Your task to perform on an android device: Add "razer nari" to the cart on target, then select checkout. Image 0: 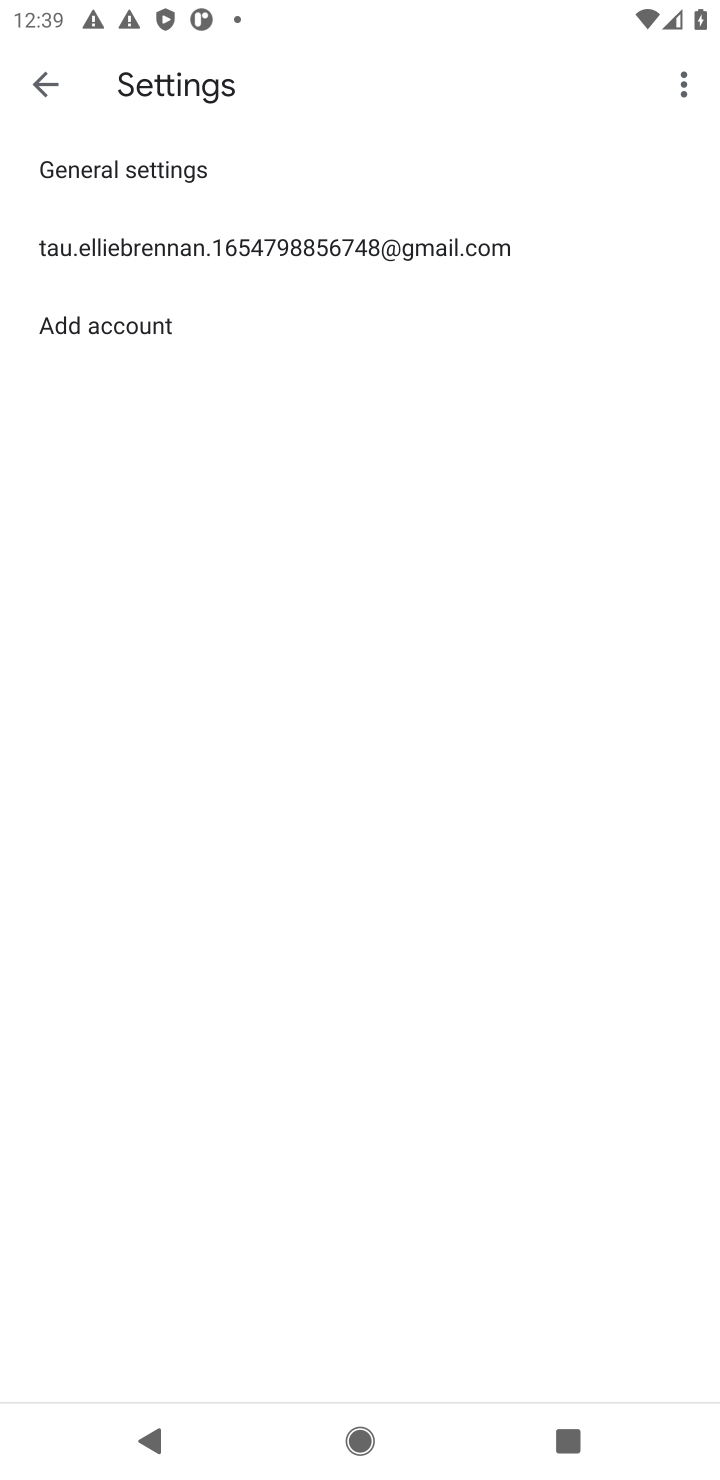
Step 0: press home button
Your task to perform on an android device: Add "razer nari" to the cart on target, then select checkout. Image 1: 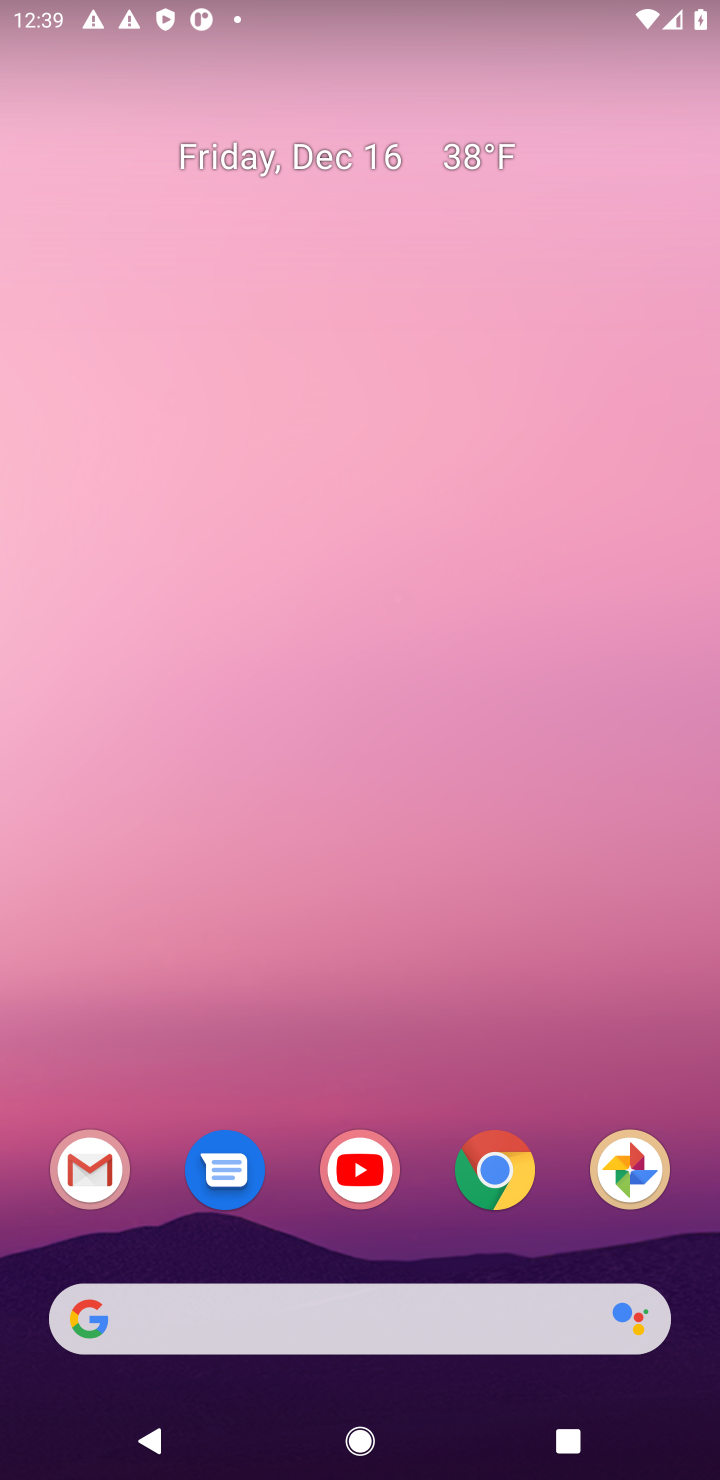
Step 1: click (482, 1182)
Your task to perform on an android device: Add "razer nari" to the cart on target, then select checkout. Image 2: 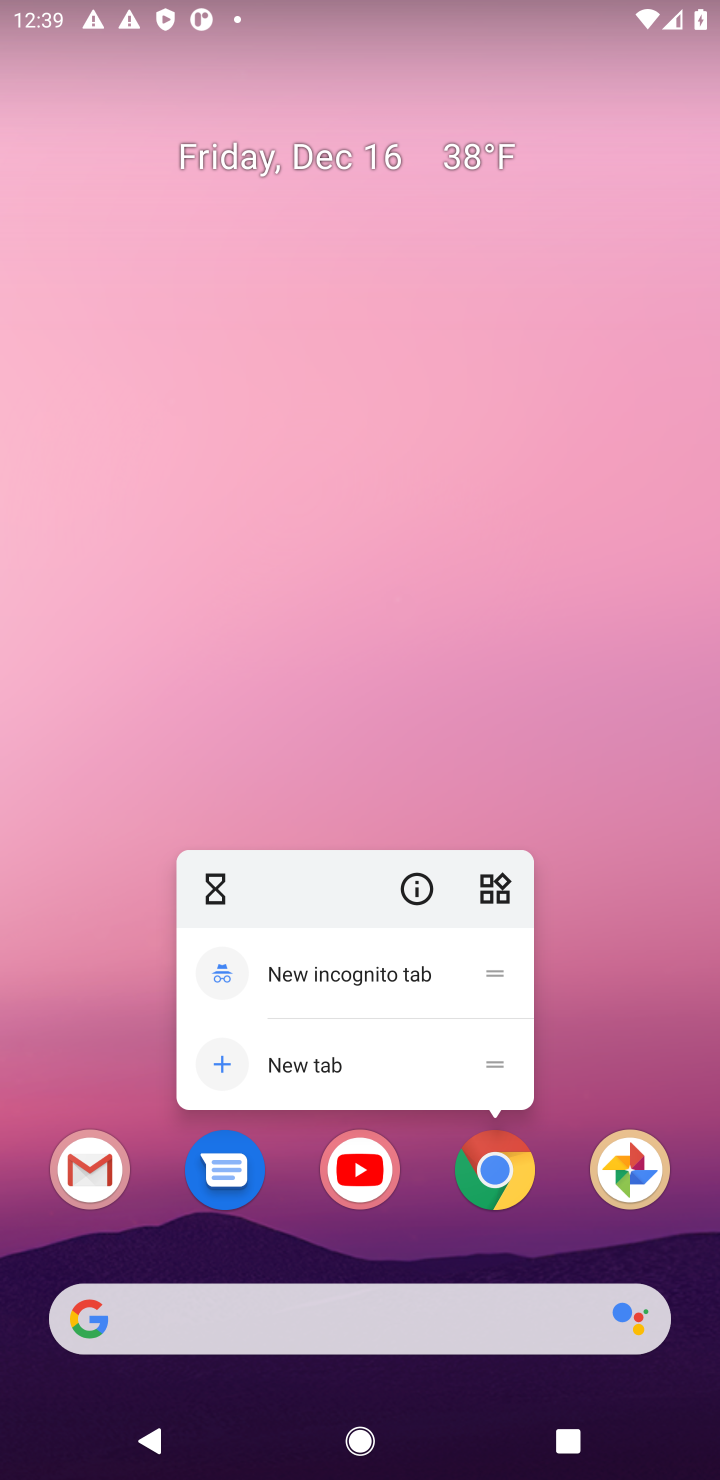
Step 2: click (488, 1191)
Your task to perform on an android device: Add "razer nari" to the cart on target, then select checkout. Image 3: 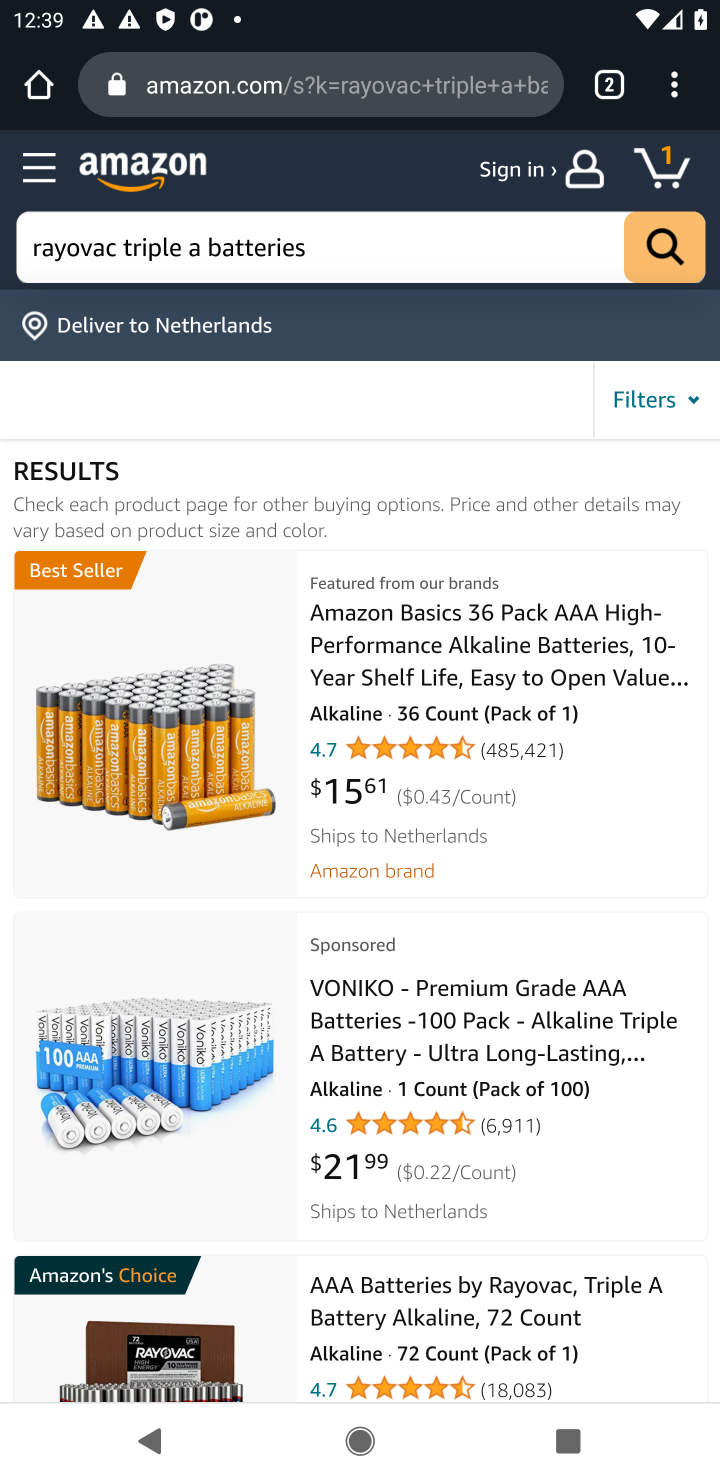
Step 3: click (230, 94)
Your task to perform on an android device: Add "razer nari" to the cart on target, then select checkout. Image 4: 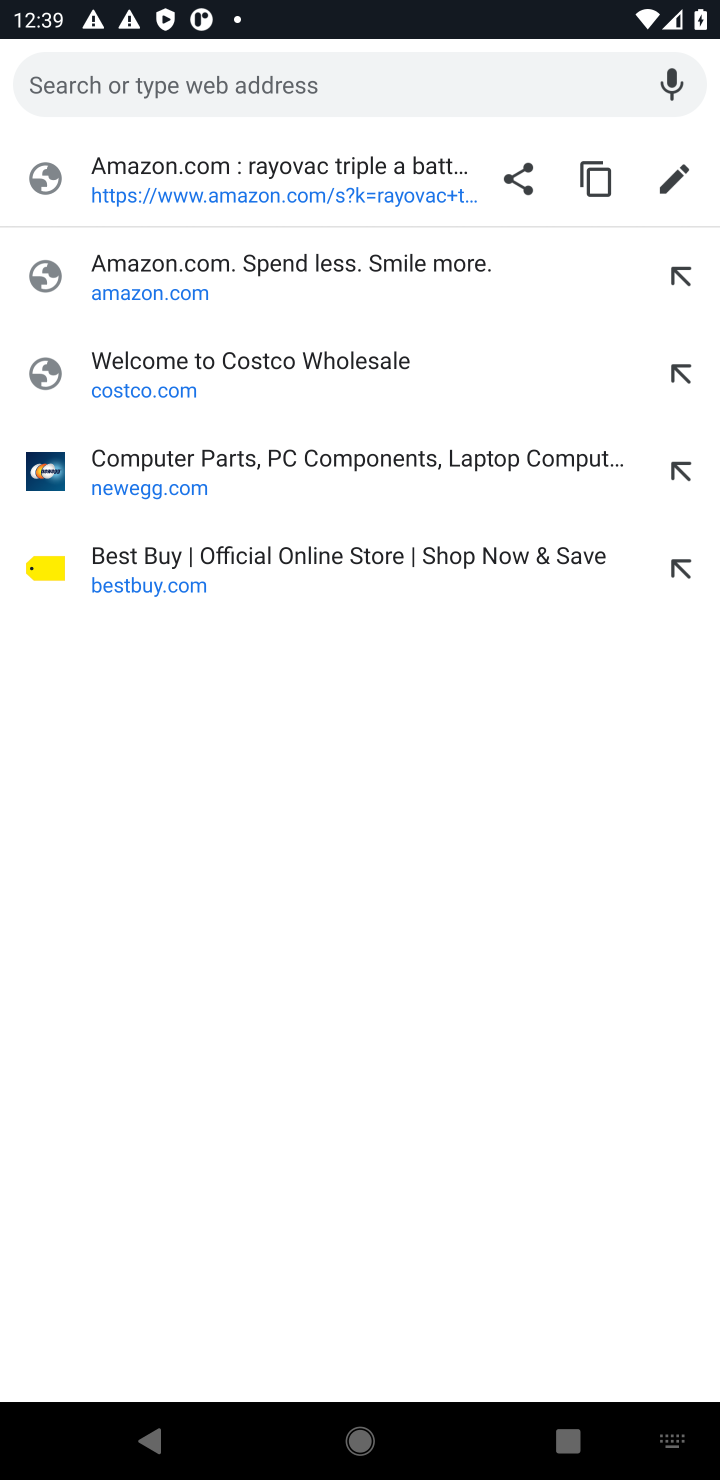
Step 4: type "target.com"
Your task to perform on an android device: Add "razer nari" to the cart on target, then select checkout. Image 5: 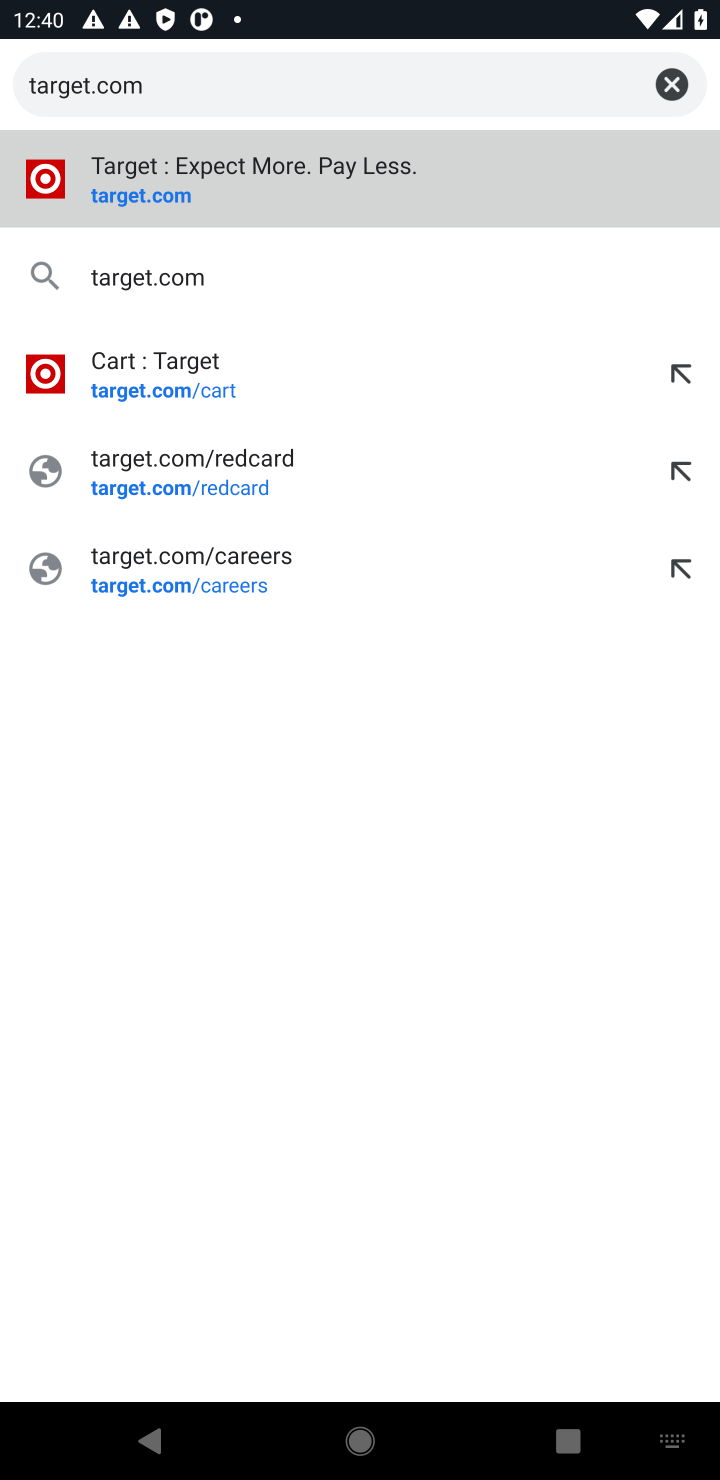
Step 5: click (149, 205)
Your task to perform on an android device: Add "razer nari" to the cart on target, then select checkout. Image 6: 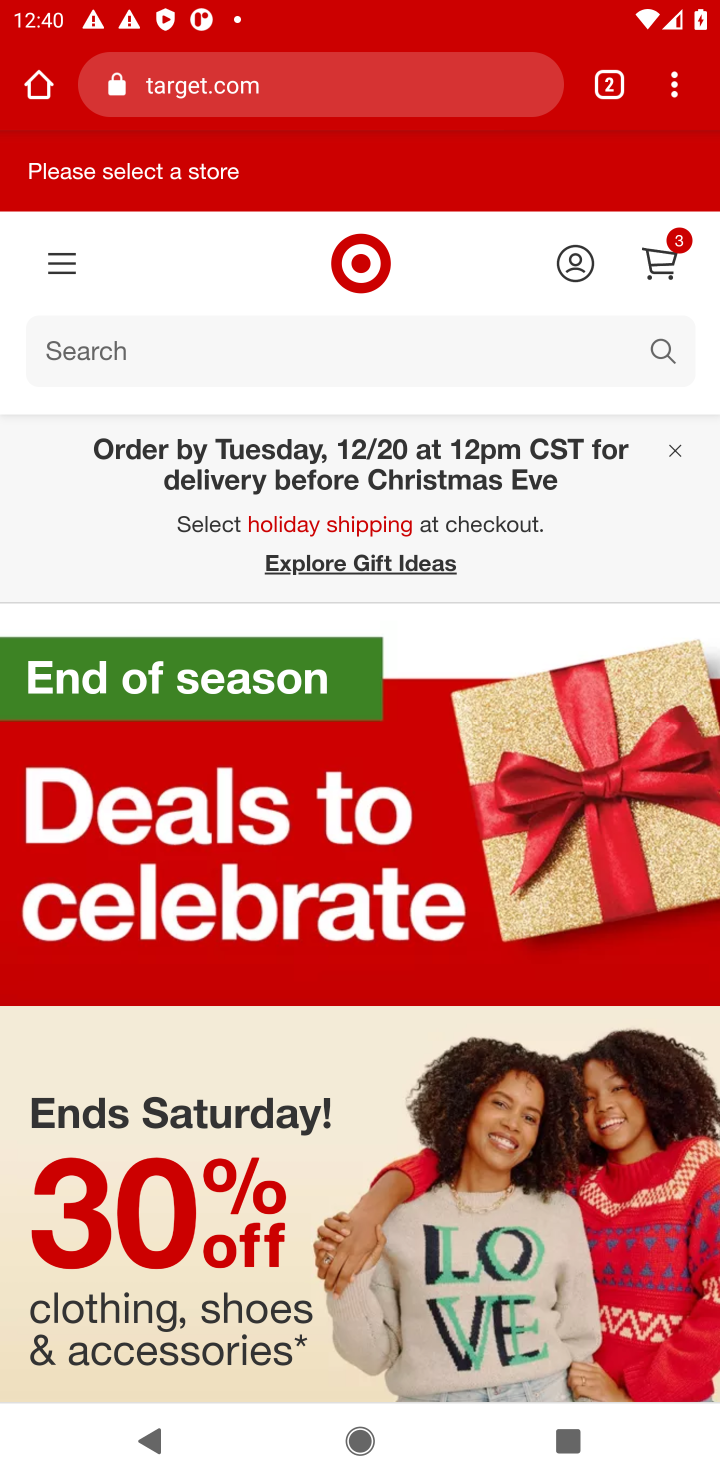
Step 6: click (89, 368)
Your task to perform on an android device: Add "razer nari" to the cart on target, then select checkout. Image 7: 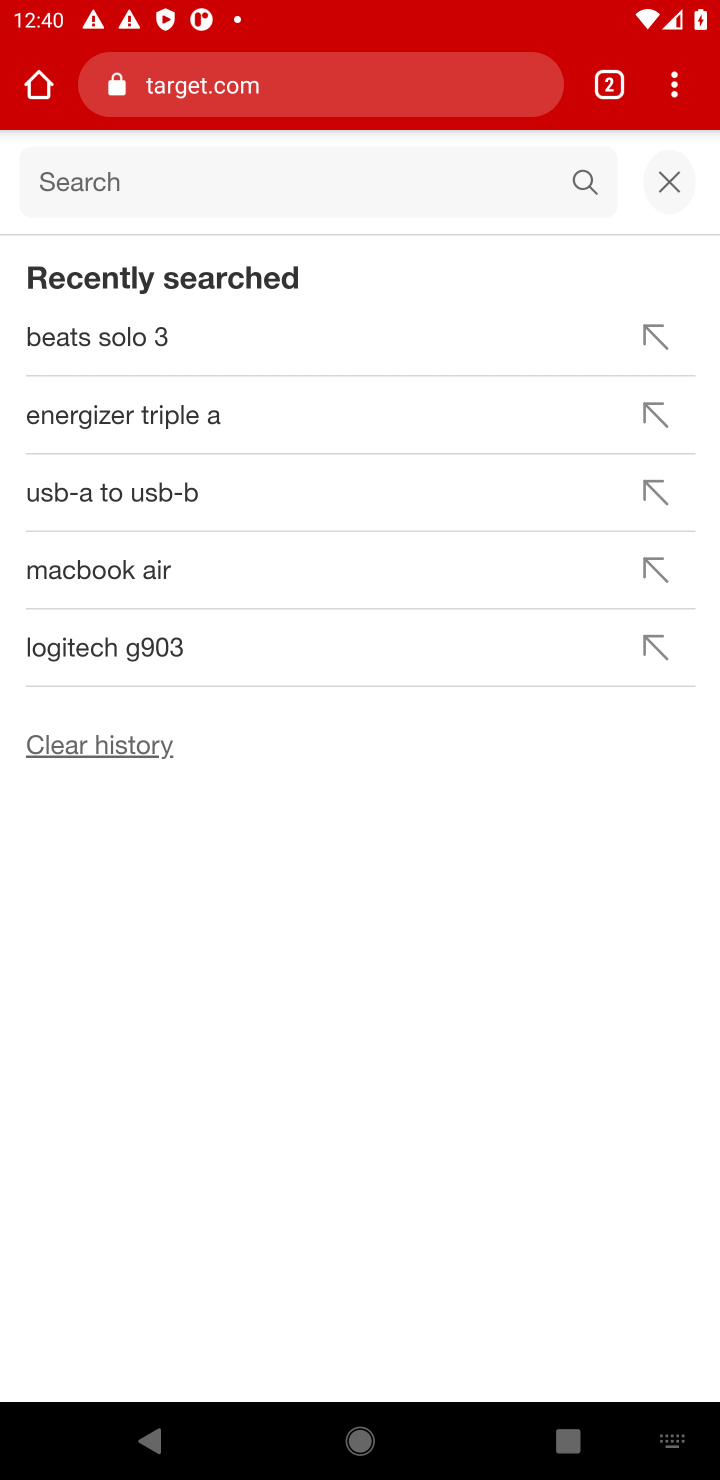
Step 7: type "razer nari"
Your task to perform on an android device: Add "razer nari" to the cart on target, then select checkout. Image 8: 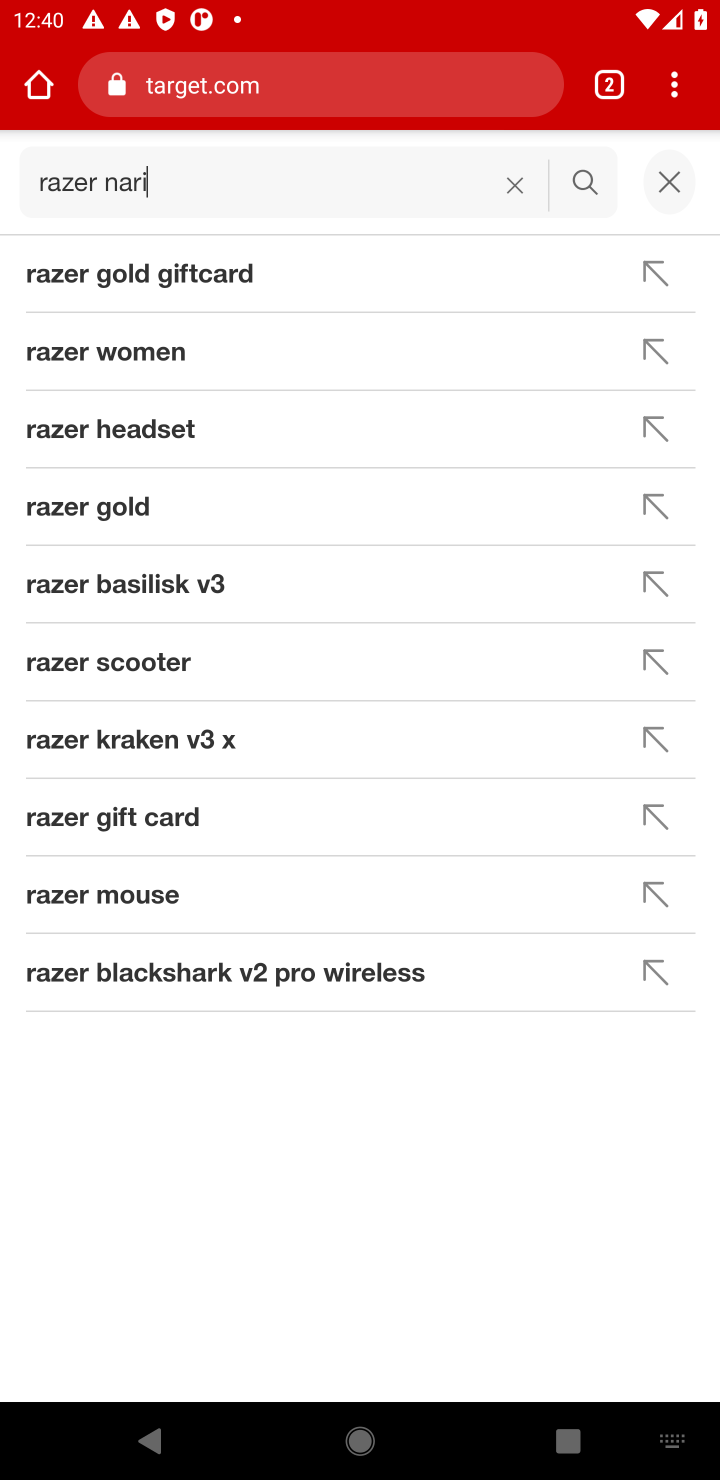
Step 8: click (593, 188)
Your task to perform on an android device: Add "razer nari" to the cart on target, then select checkout. Image 9: 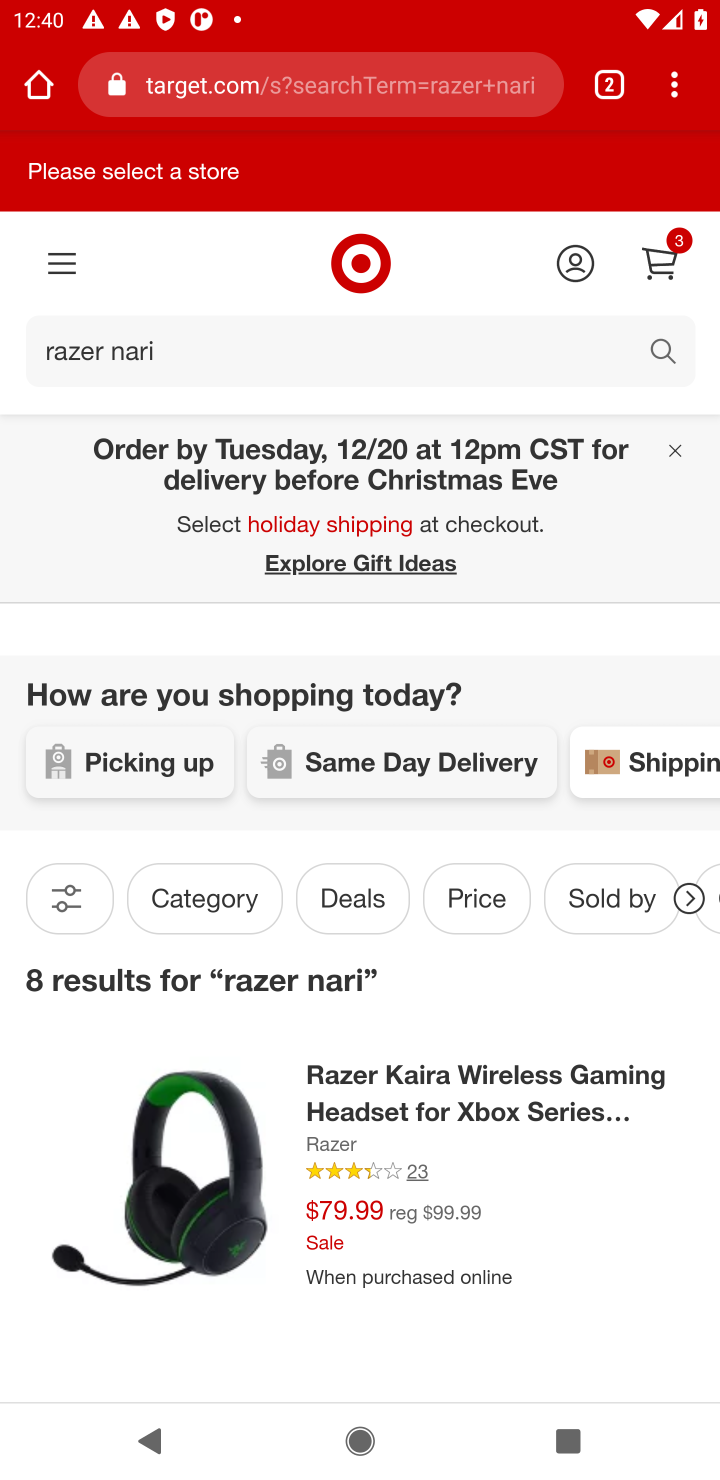
Step 9: task complete